Your task to perform on an android device: Open internet settings Image 0: 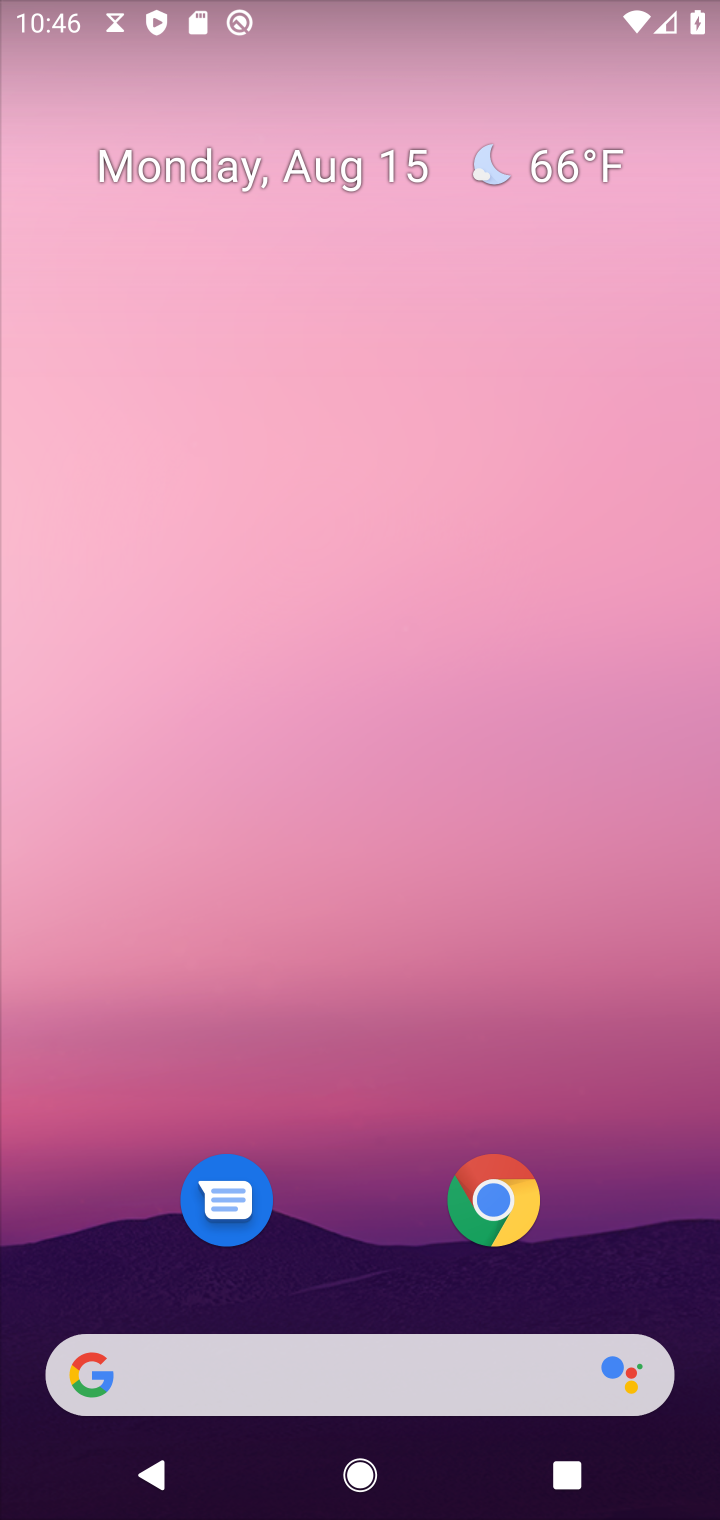
Step 0: drag from (345, 1244) to (234, 10)
Your task to perform on an android device: Open internet settings Image 1: 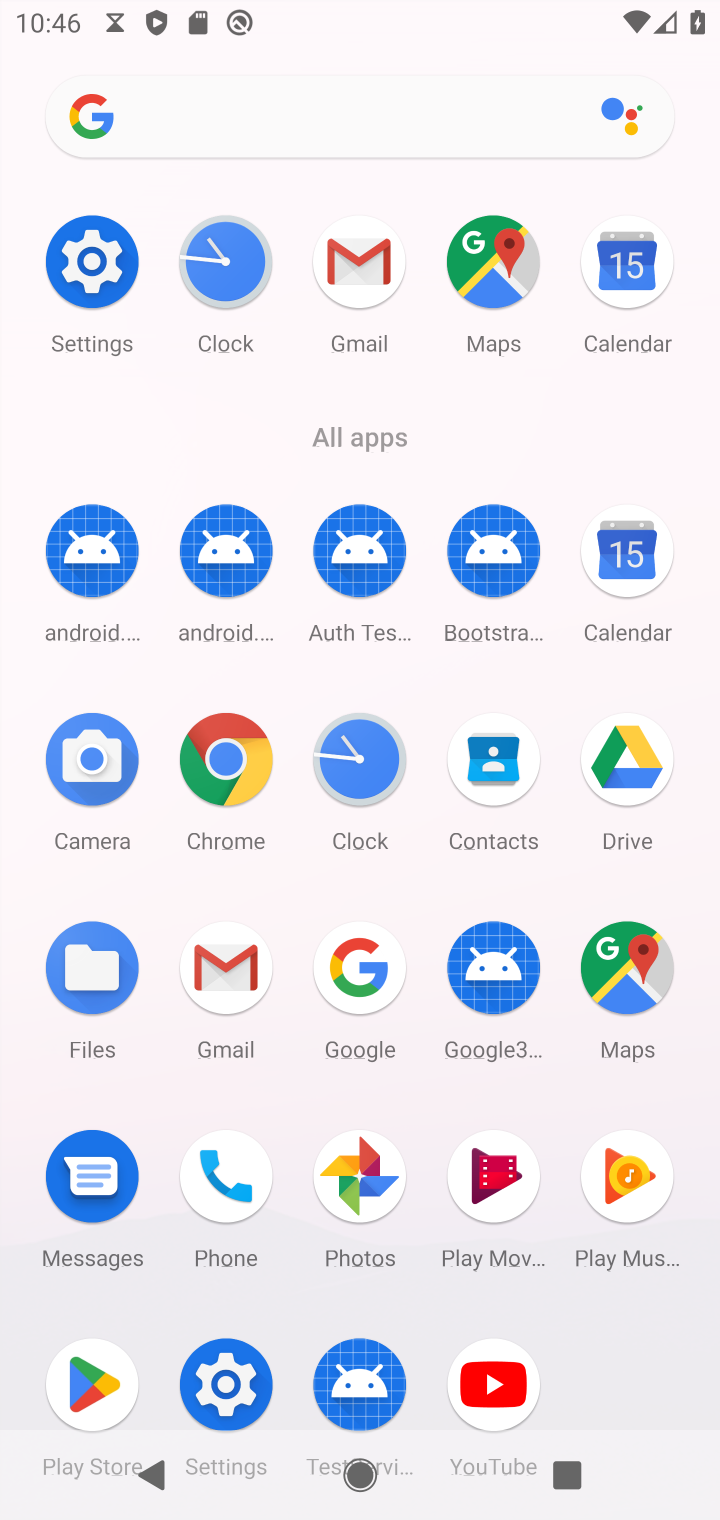
Step 1: click (229, 1356)
Your task to perform on an android device: Open internet settings Image 2: 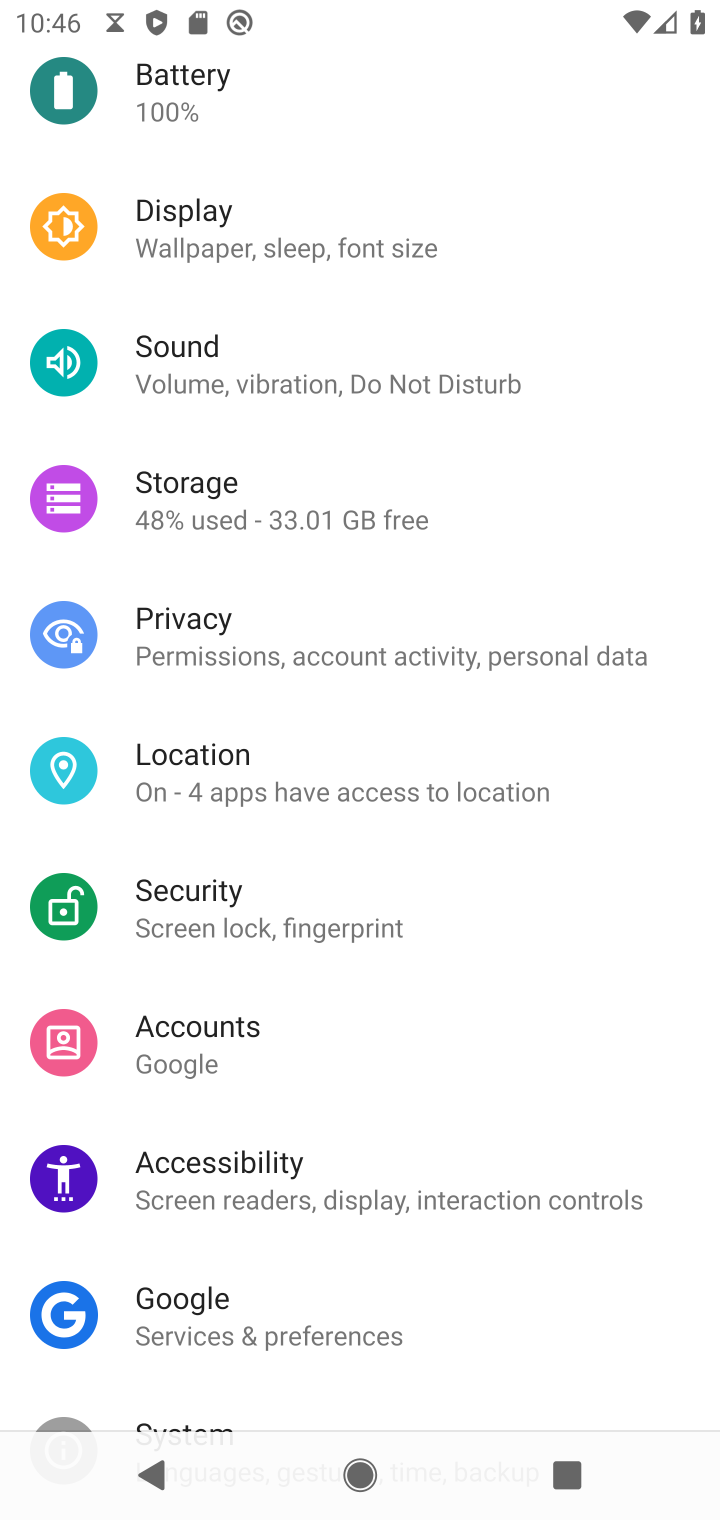
Step 2: drag from (303, 382) to (252, 1286)
Your task to perform on an android device: Open internet settings Image 3: 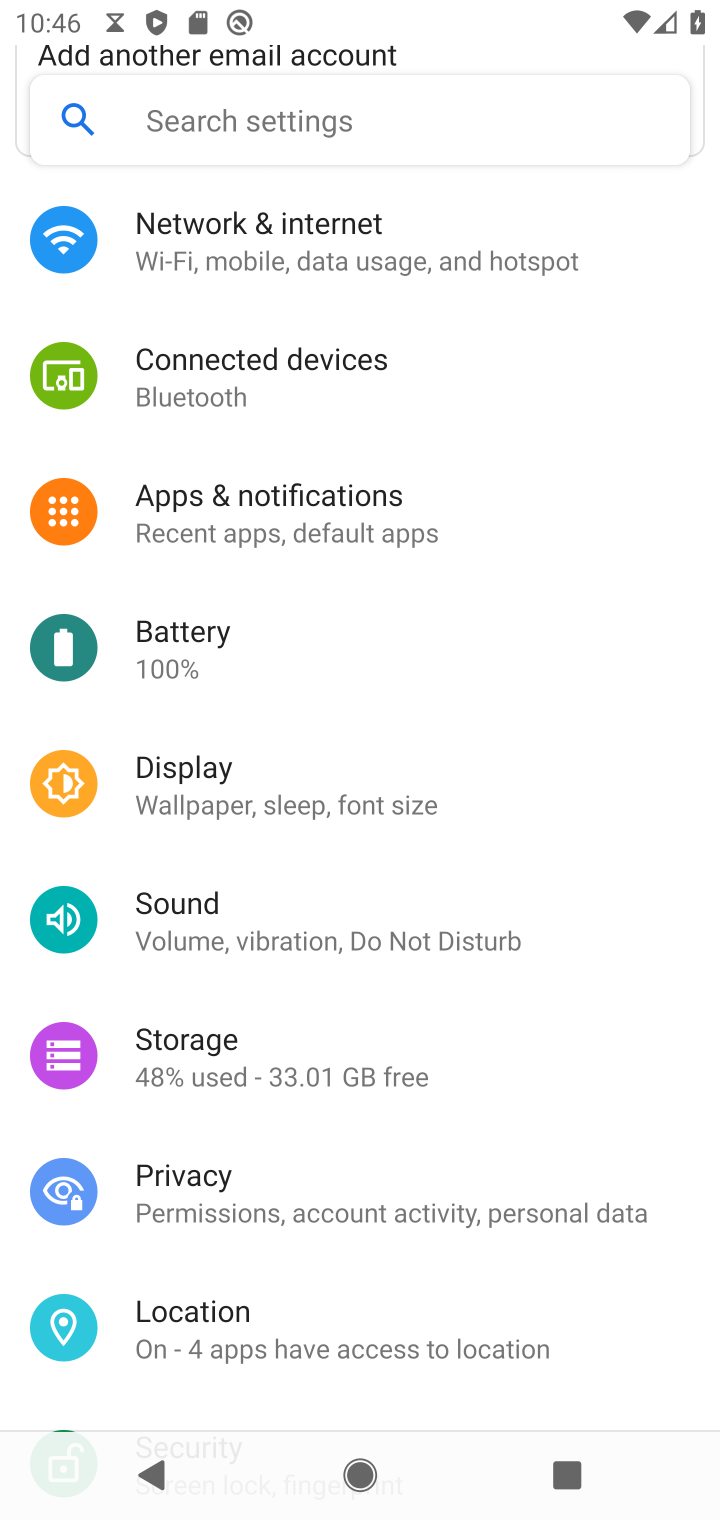
Step 3: click (328, 254)
Your task to perform on an android device: Open internet settings Image 4: 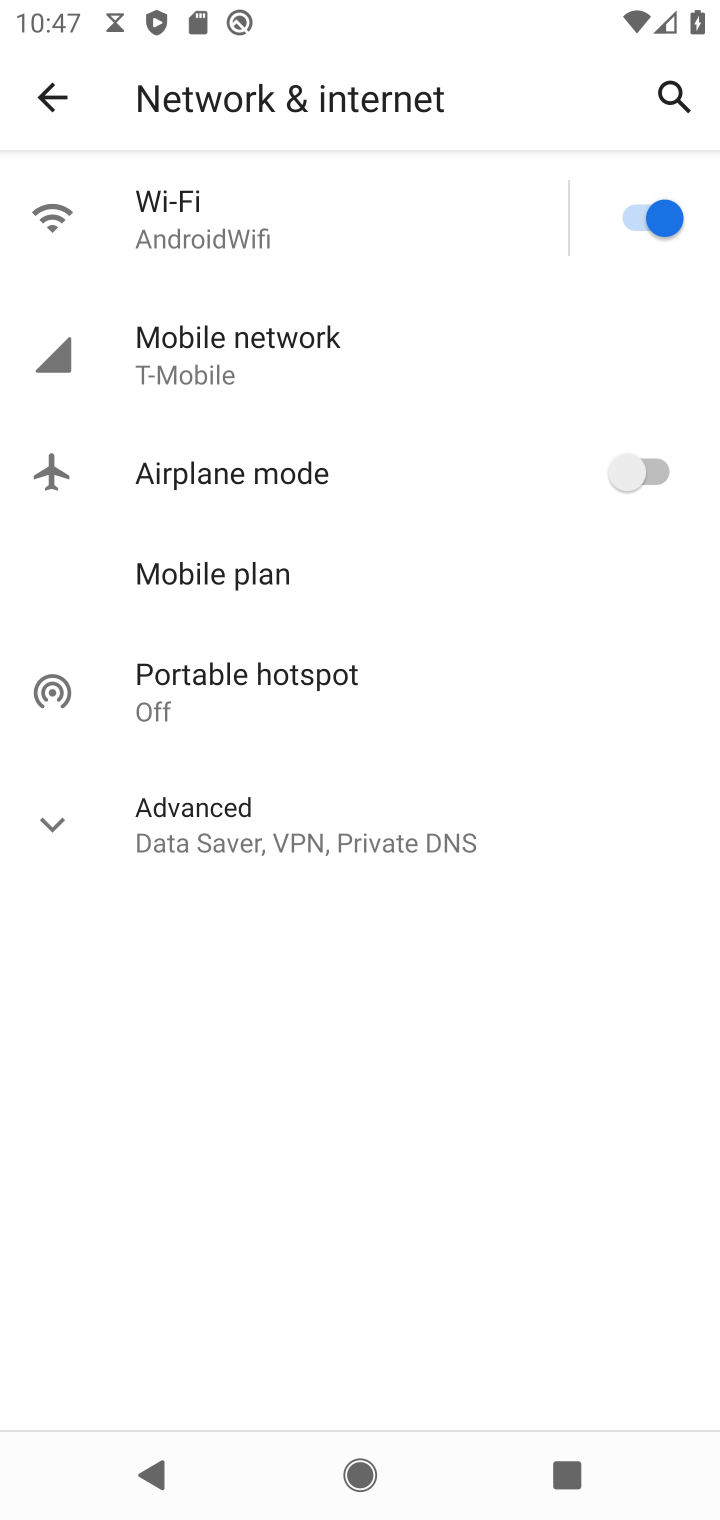
Step 4: task complete